Your task to perform on an android device: move a message to another label in the gmail app Image 0: 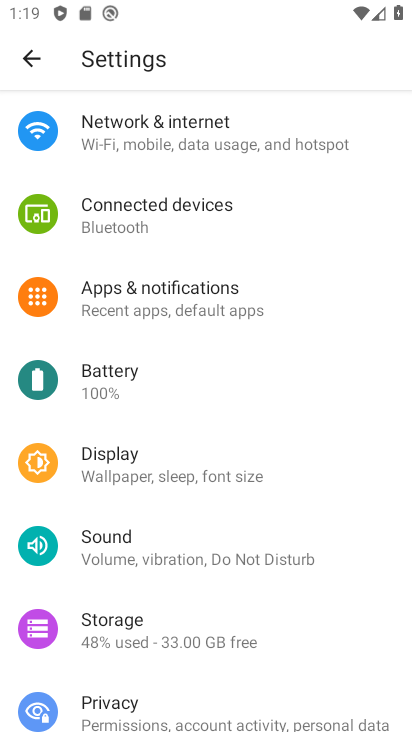
Step 0: drag from (221, 644) to (230, 391)
Your task to perform on an android device: move a message to another label in the gmail app Image 1: 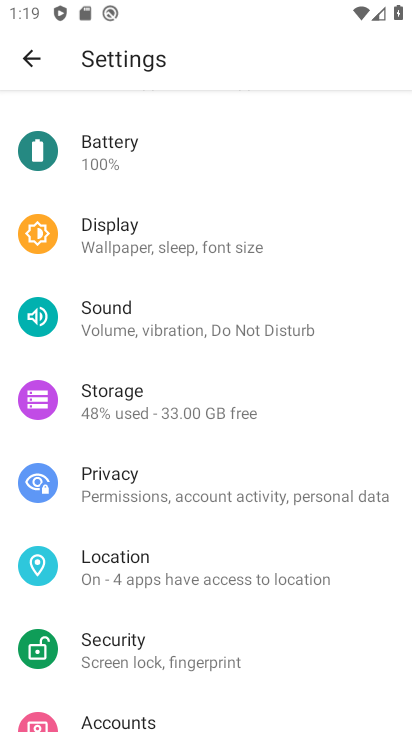
Step 1: press home button
Your task to perform on an android device: move a message to another label in the gmail app Image 2: 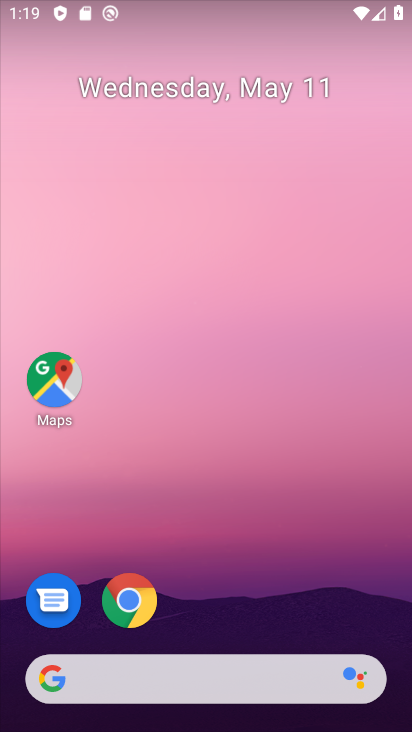
Step 2: drag from (240, 618) to (266, 313)
Your task to perform on an android device: move a message to another label in the gmail app Image 3: 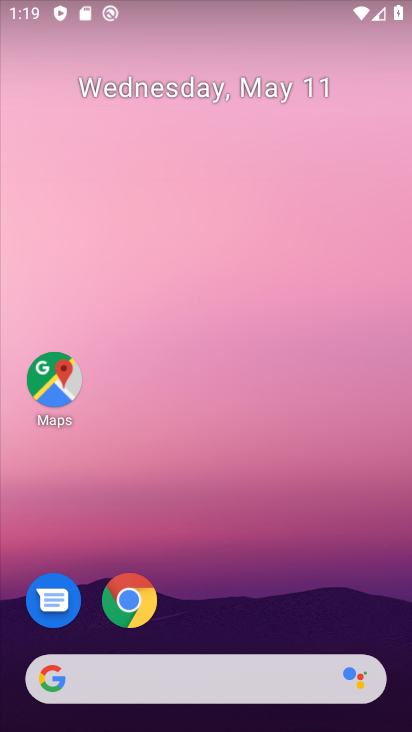
Step 3: drag from (192, 604) to (215, 277)
Your task to perform on an android device: move a message to another label in the gmail app Image 4: 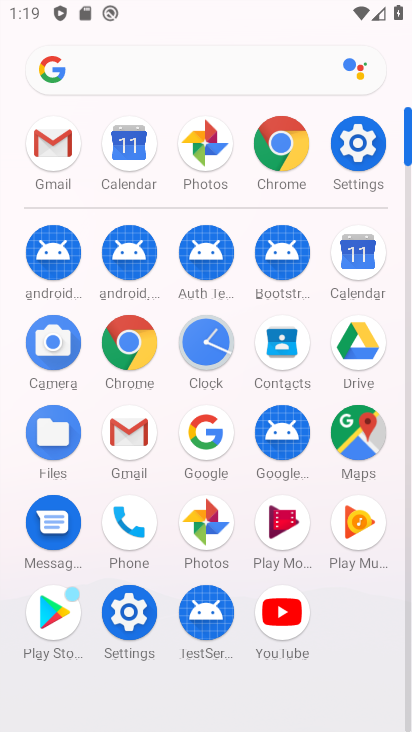
Step 4: click (55, 139)
Your task to perform on an android device: move a message to another label in the gmail app Image 5: 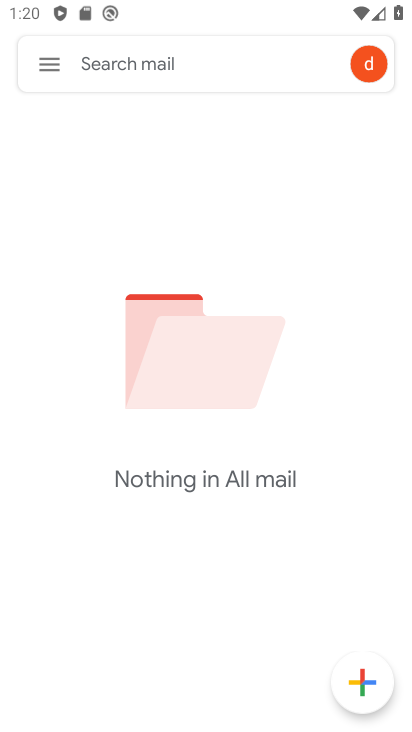
Step 5: task complete